Your task to perform on an android device: add a contact in the contacts app Image 0: 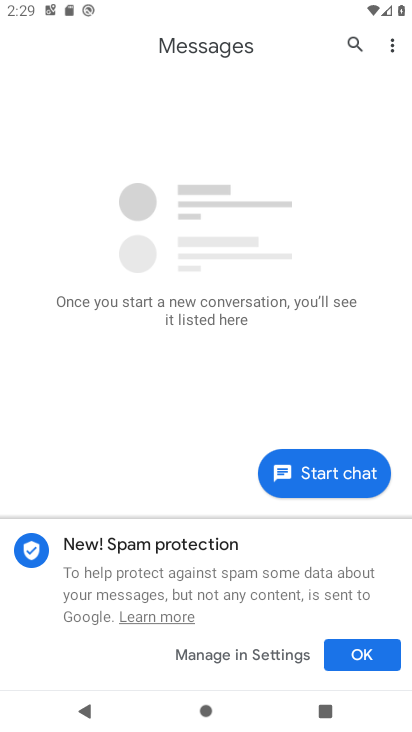
Step 0: drag from (179, 573) to (250, 153)
Your task to perform on an android device: add a contact in the contacts app Image 1: 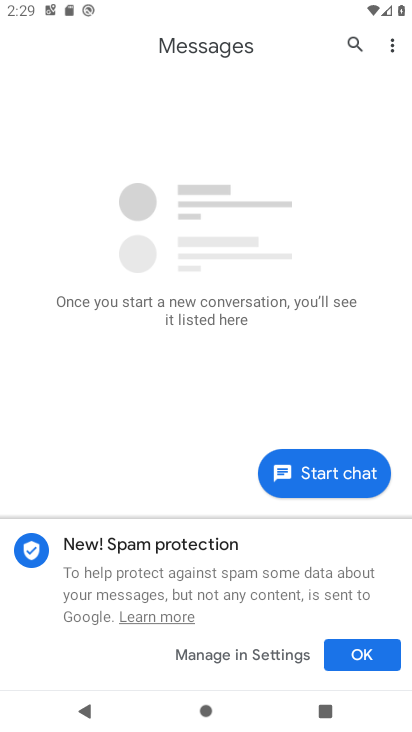
Step 1: press home button
Your task to perform on an android device: add a contact in the contacts app Image 2: 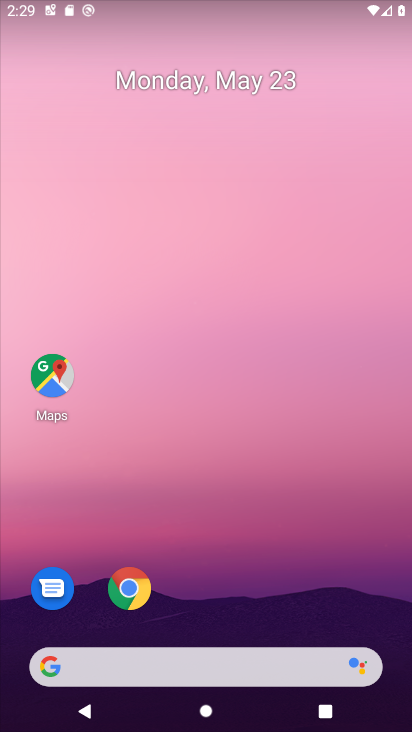
Step 2: drag from (189, 621) to (250, 90)
Your task to perform on an android device: add a contact in the contacts app Image 3: 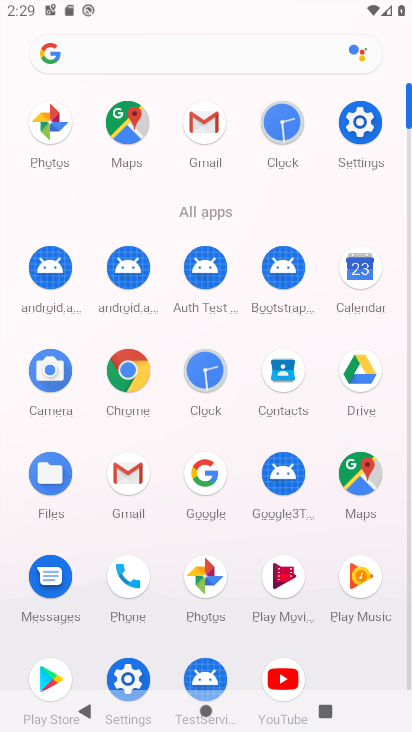
Step 3: click (283, 377)
Your task to perform on an android device: add a contact in the contacts app Image 4: 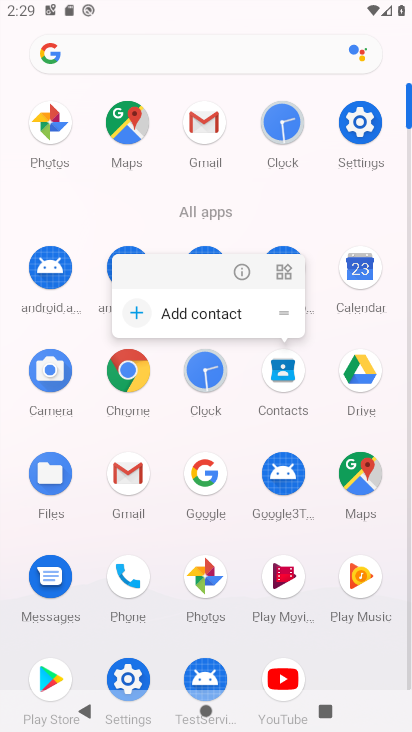
Step 4: click (240, 268)
Your task to perform on an android device: add a contact in the contacts app Image 5: 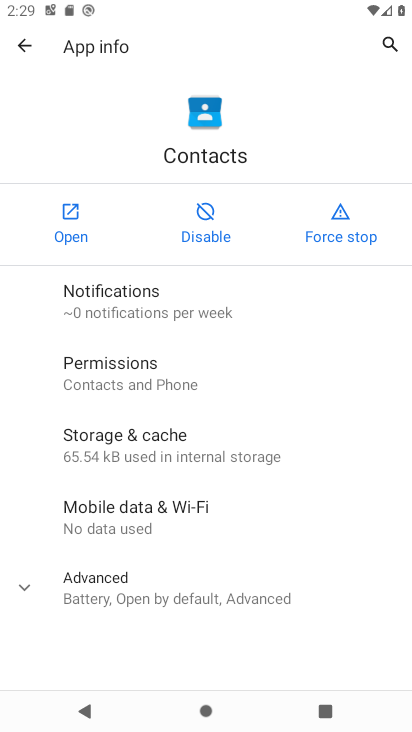
Step 5: click (61, 216)
Your task to perform on an android device: add a contact in the contacts app Image 6: 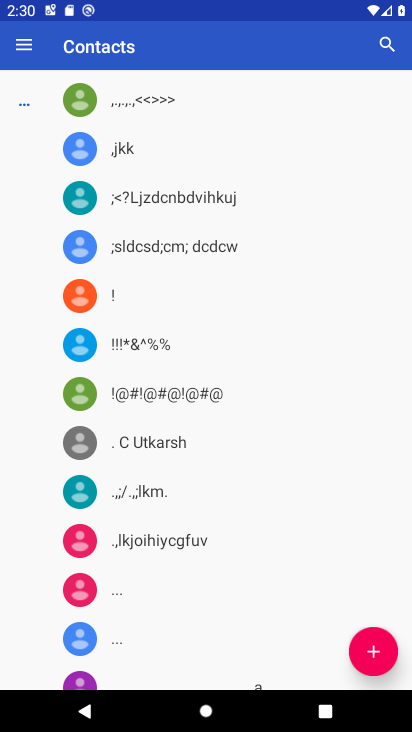
Step 6: click (368, 652)
Your task to perform on an android device: add a contact in the contacts app Image 7: 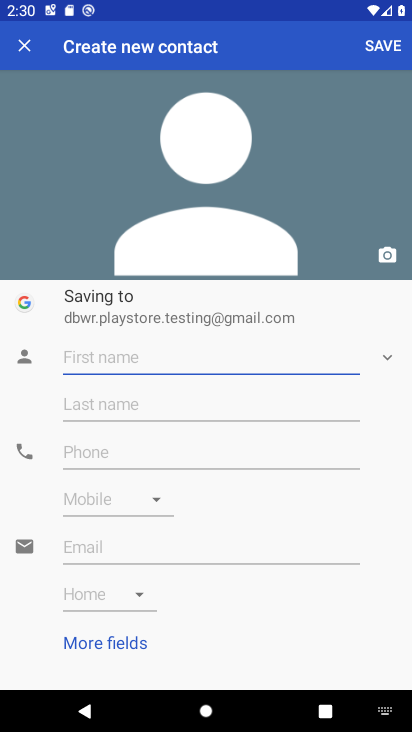
Step 7: click (160, 356)
Your task to perform on an android device: add a contact in the contacts app Image 8: 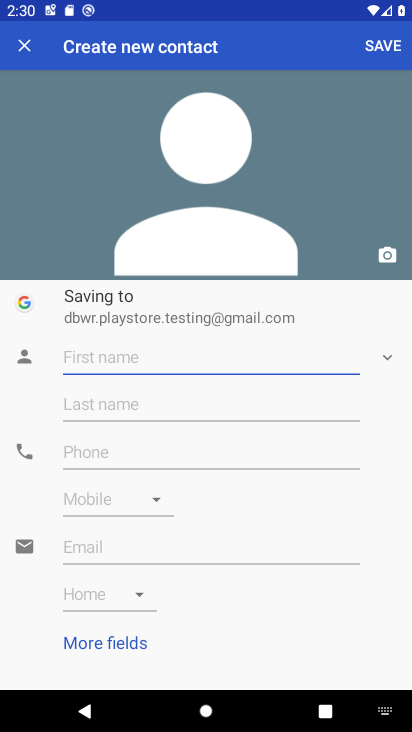
Step 8: type "nbv"
Your task to perform on an android device: add a contact in the contacts app Image 9: 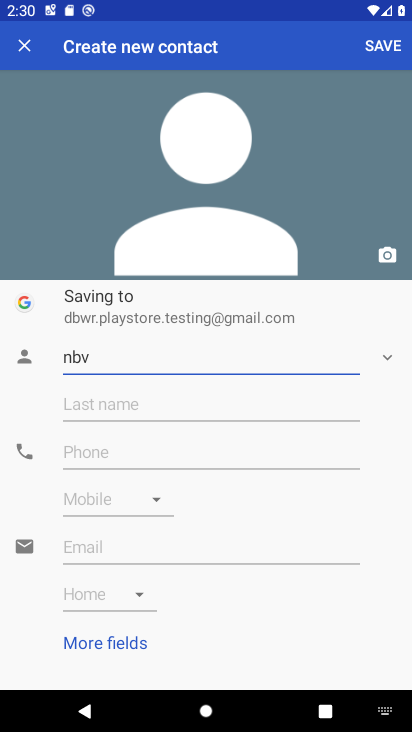
Step 9: click (371, 47)
Your task to perform on an android device: add a contact in the contacts app Image 10: 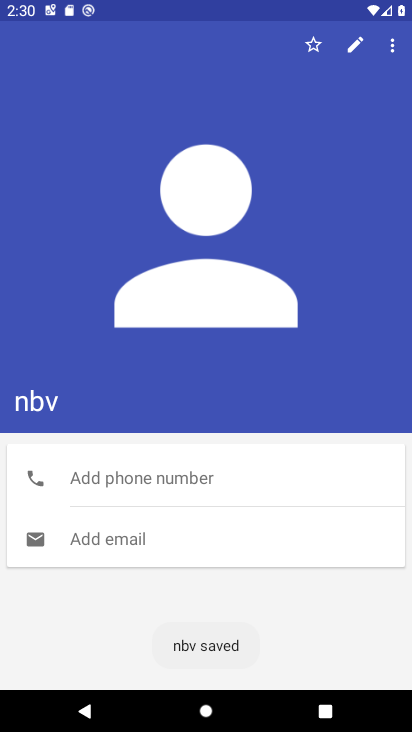
Step 10: task complete